Your task to perform on an android device: turn off translation in the chrome app Image 0: 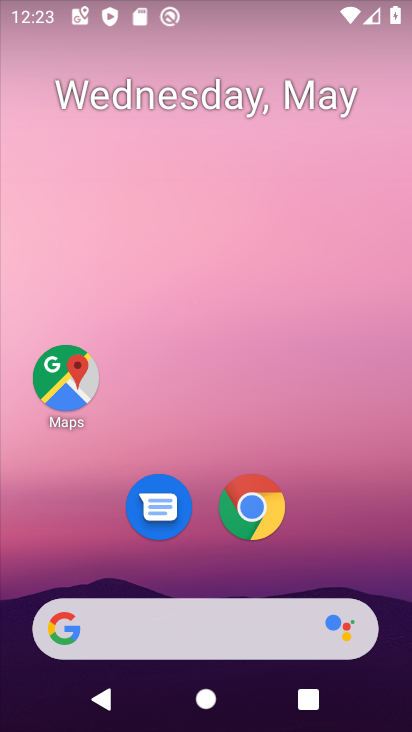
Step 0: click (260, 492)
Your task to perform on an android device: turn off translation in the chrome app Image 1: 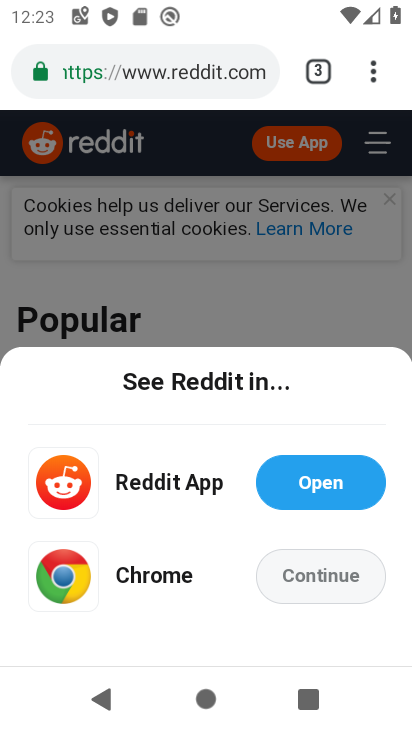
Step 1: click (373, 70)
Your task to perform on an android device: turn off translation in the chrome app Image 2: 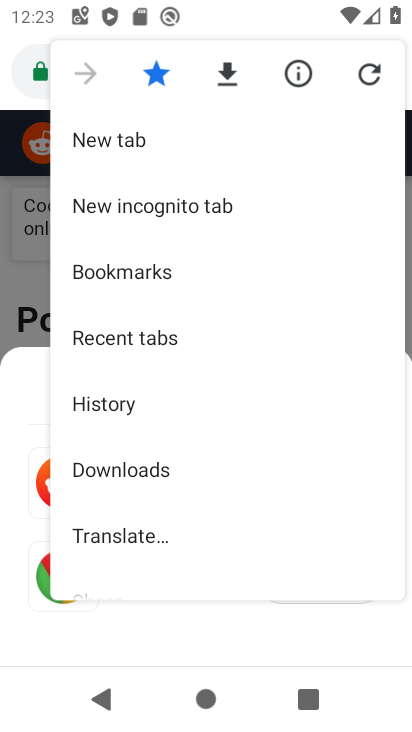
Step 2: drag from (215, 505) to (216, 182)
Your task to perform on an android device: turn off translation in the chrome app Image 3: 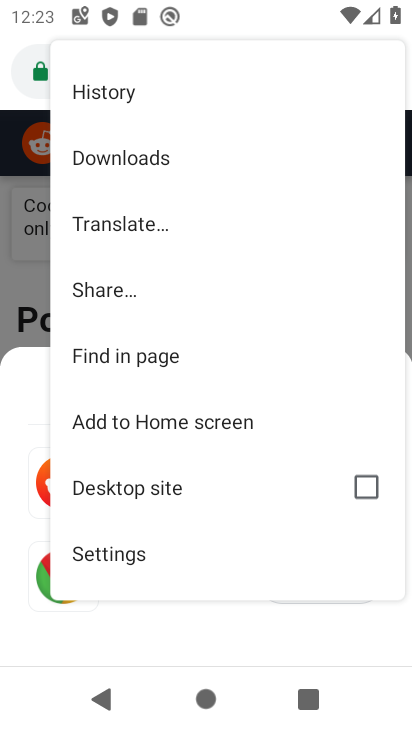
Step 3: click (145, 548)
Your task to perform on an android device: turn off translation in the chrome app Image 4: 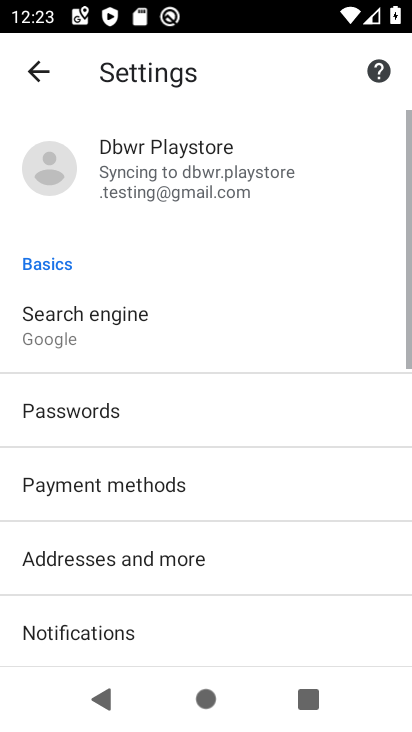
Step 4: drag from (150, 540) to (211, 206)
Your task to perform on an android device: turn off translation in the chrome app Image 5: 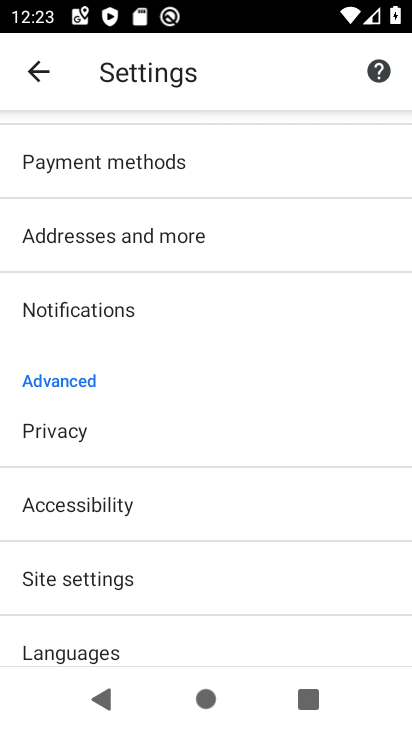
Step 5: drag from (132, 631) to (202, 330)
Your task to perform on an android device: turn off translation in the chrome app Image 6: 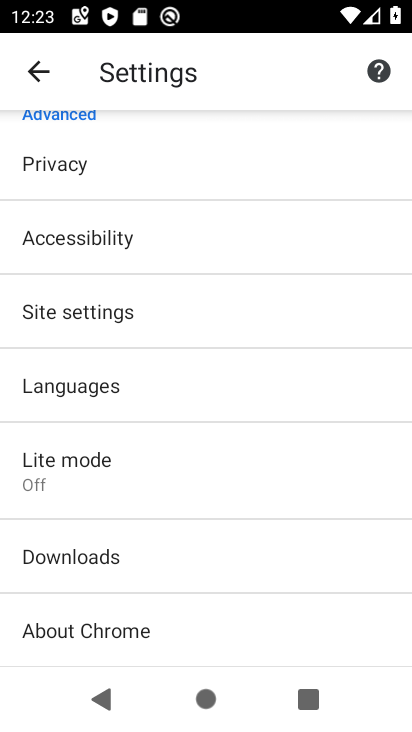
Step 6: click (138, 389)
Your task to perform on an android device: turn off translation in the chrome app Image 7: 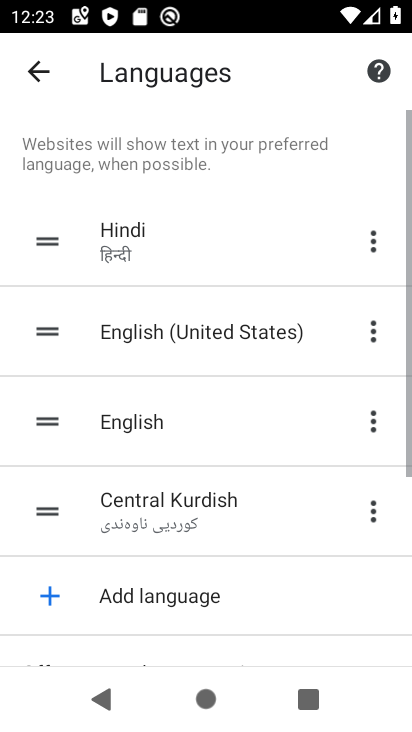
Step 7: drag from (263, 593) to (286, 254)
Your task to perform on an android device: turn off translation in the chrome app Image 8: 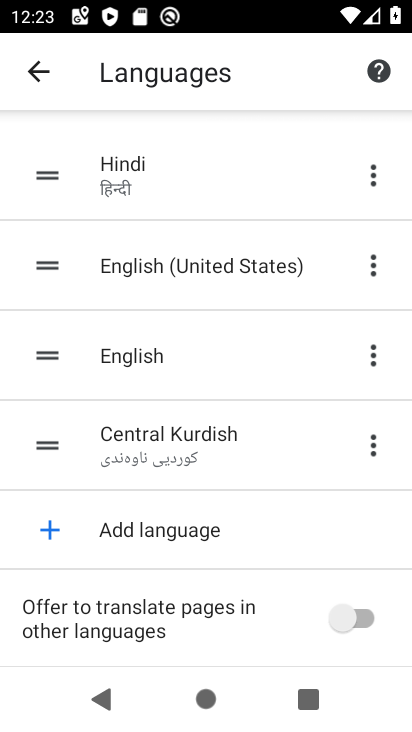
Step 8: click (353, 607)
Your task to perform on an android device: turn off translation in the chrome app Image 9: 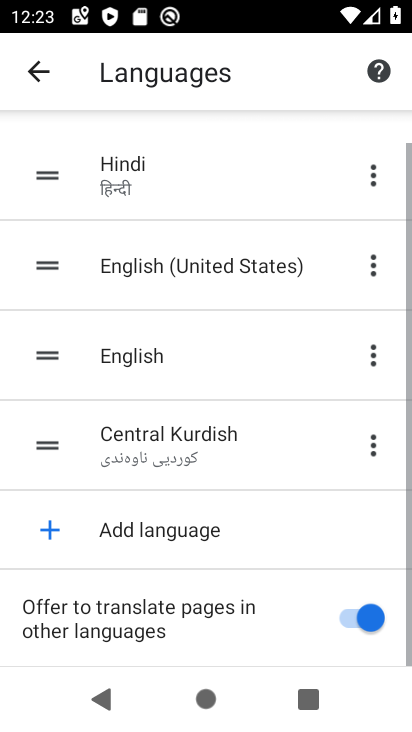
Step 9: click (353, 607)
Your task to perform on an android device: turn off translation in the chrome app Image 10: 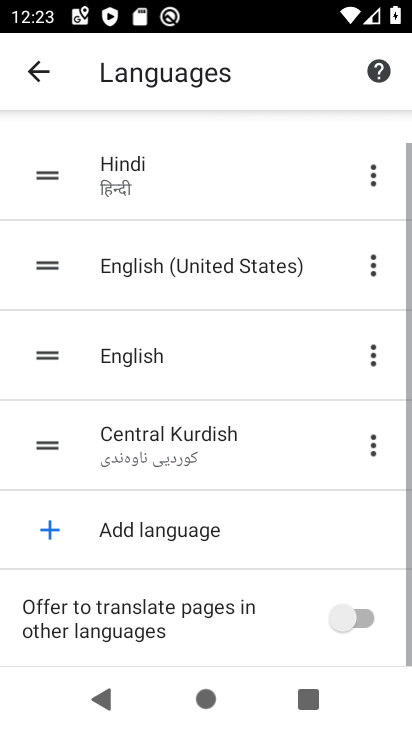
Step 10: task complete